Your task to perform on an android device: Show me productivity apps on the Play Store Image 0: 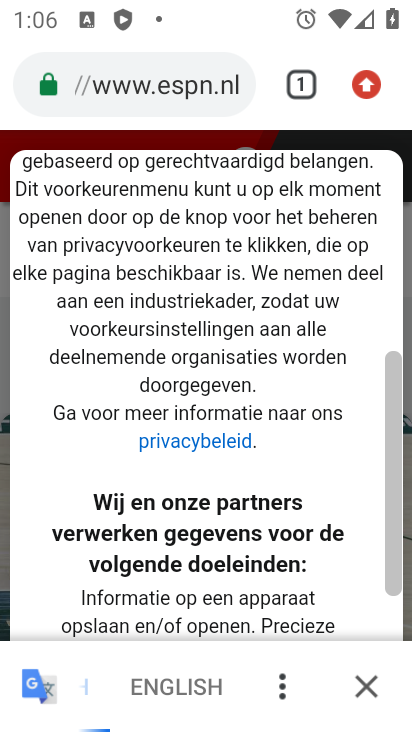
Step 0: press home button
Your task to perform on an android device: Show me productivity apps on the Play Store Image 1: 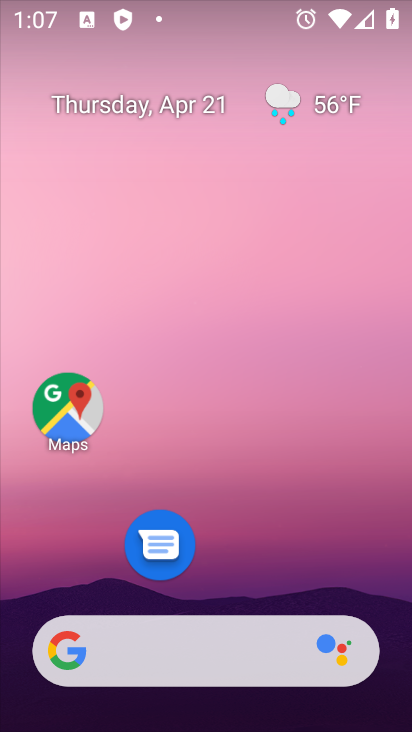
Step 1: drag from (266, 589) to (353, 128)
Your task to perform on an android device: Show me productivity apps on the Play Store Image 2: 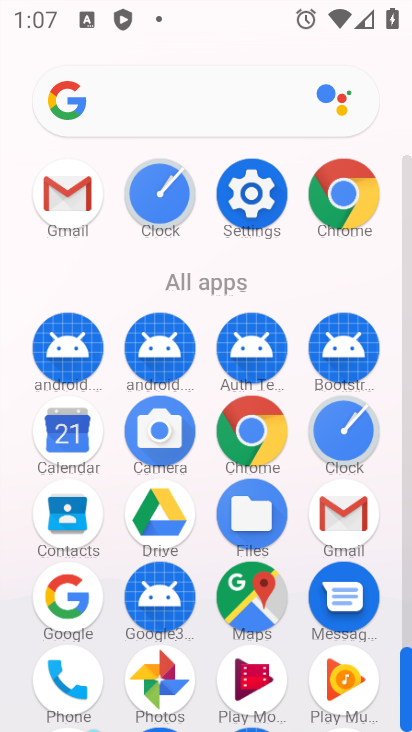
Step 2: drag from (406, 679) to (411, 729)
Your task to perform on an android device: Show me productivity apps on the Play Store Image 3: 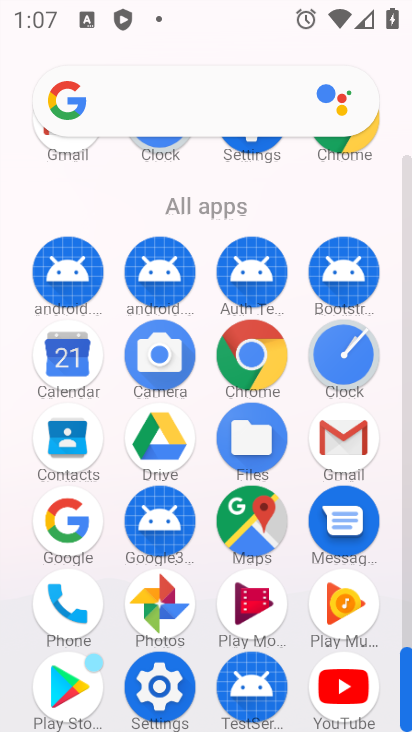
Step 3: drag from (407, 697) to (383, 724)
Your task to perform on an android device: Show me productivity apps on the Play Store Image 4: 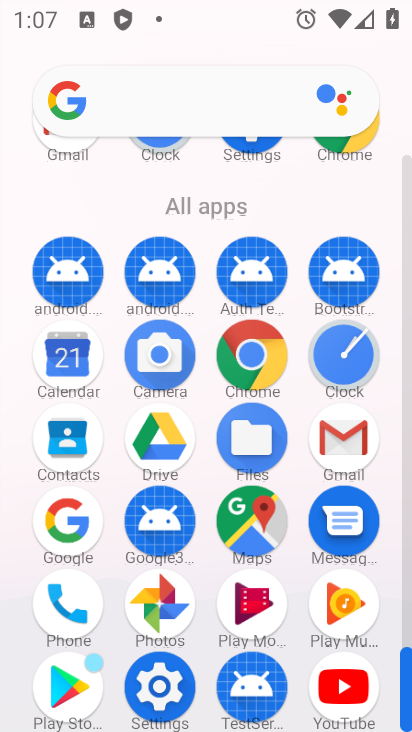
Step 4: click (71, 687)
Your task to perform on an android device: Show me productivity apps on the Play Store Image 5: 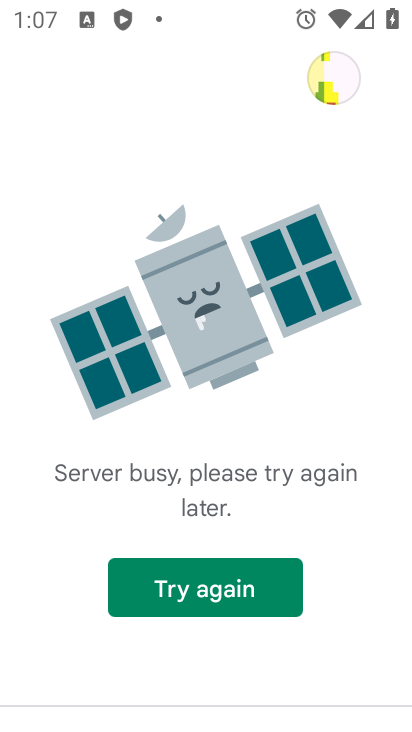
Step 5: click (188, 598)
Your task to perform on an android device: Show me productivity apps on the Play Store Image 6: 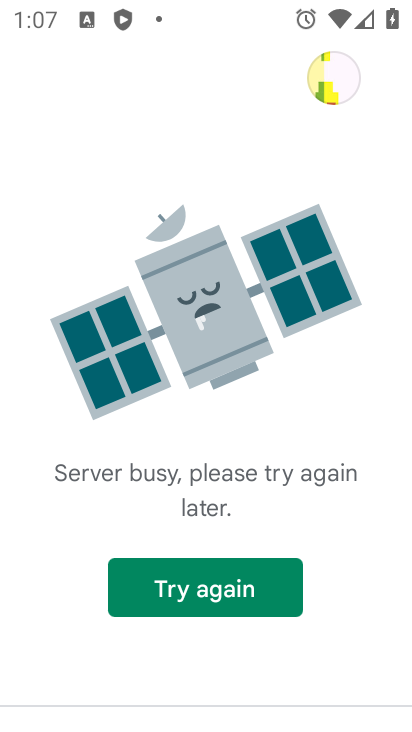
Step 6: click (192, 591)
Your task to perform on an android device: Show me productivity apps on the Play Store Image 7: 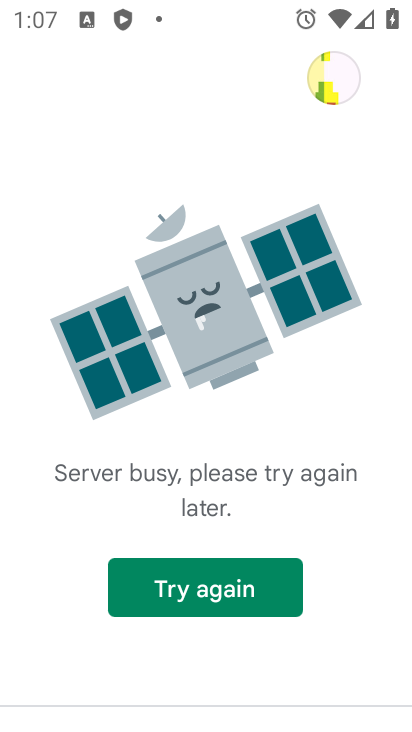
Step 7: task complete